Your task to perform on an android device: What is the news today? Image 0: 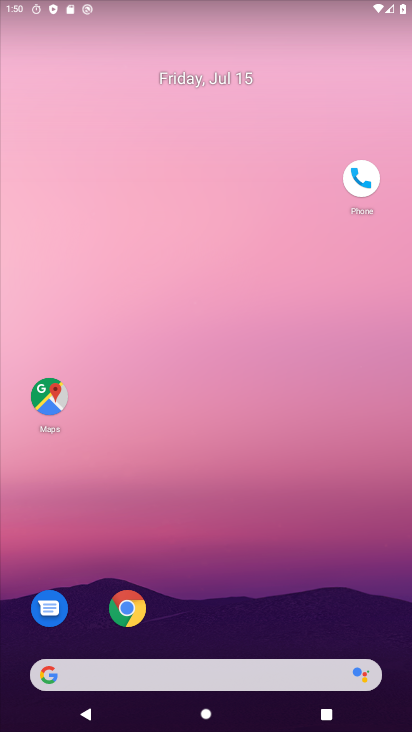
Step 0: drag from (227, 628) to (249, 117)
Your task to perform on an android device: What is the news today? Image 1: 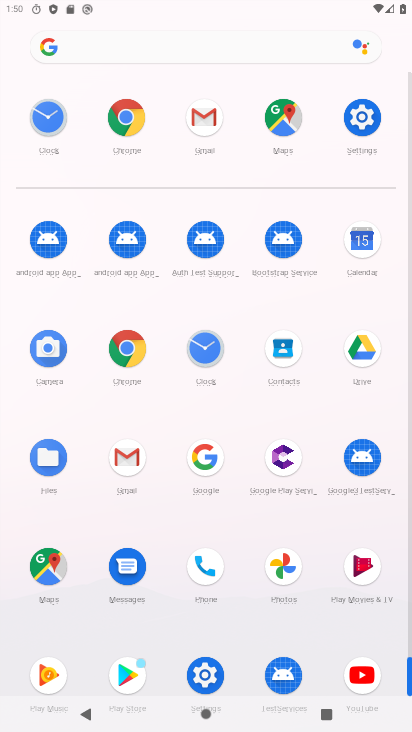
Step 1: click (358, 116)
Your task to perform on an android device: What is the news today? Image 2: 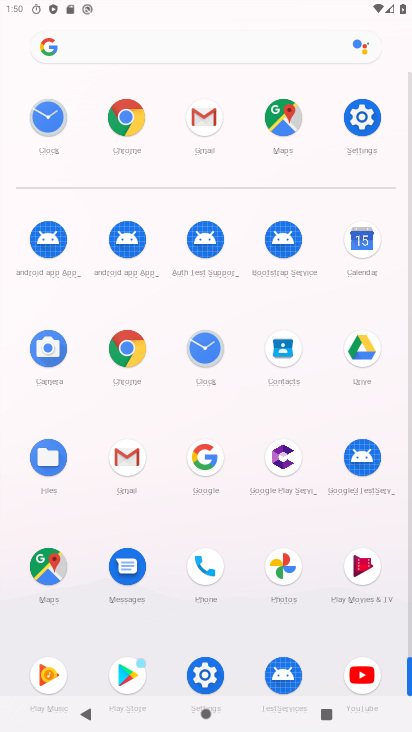
Step 2: click (358, 118)
Your task to perform on an android device: What is the news today? Image 3: 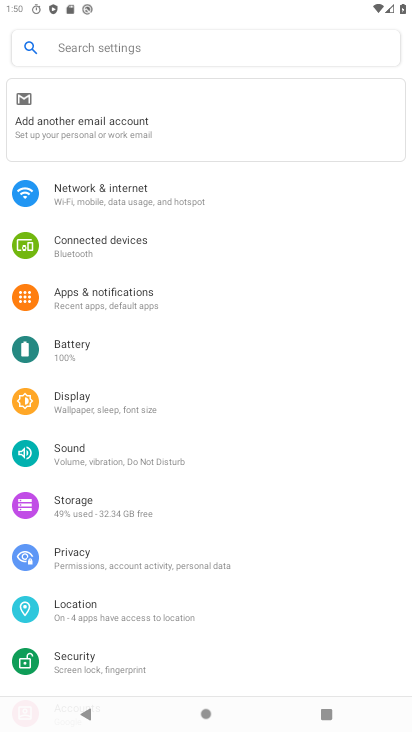
Step 3: press home button
Your task to perform on an android device: What is the news today? Image 4: 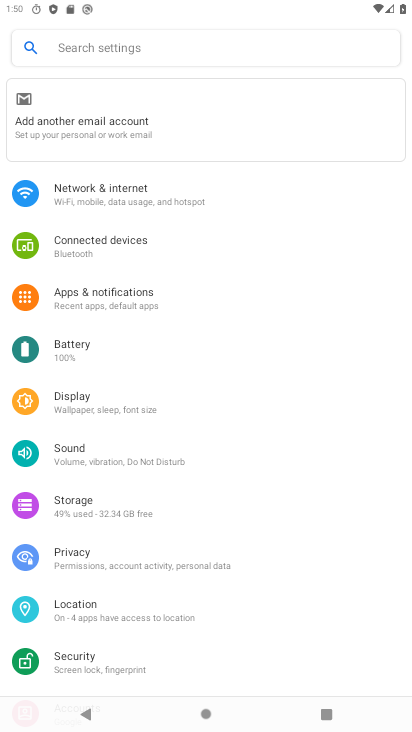
Step 4: press home button
Your task to perform on an android device: What is the news today? Image 5: 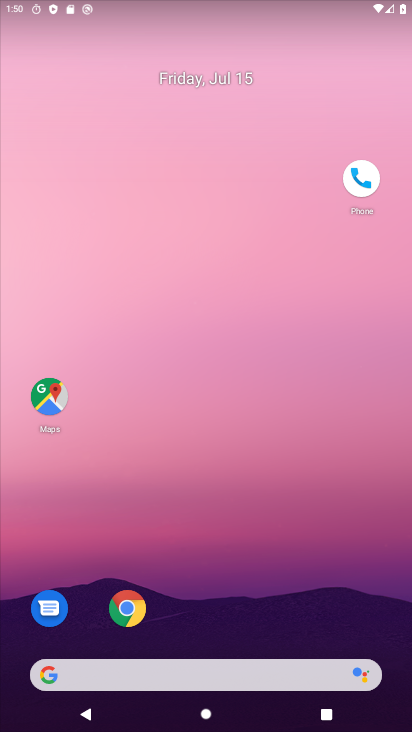
Step 5: drag from (250, 654) to (247, 17)
Your task to perform on an android device: What is the news today? Image 6: 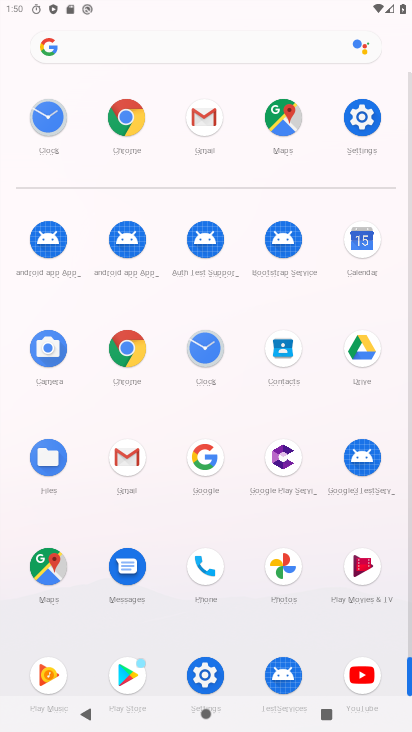
Step 6: click (113, 53)
Your task to perform on an android device: What is the news today? Image 7: 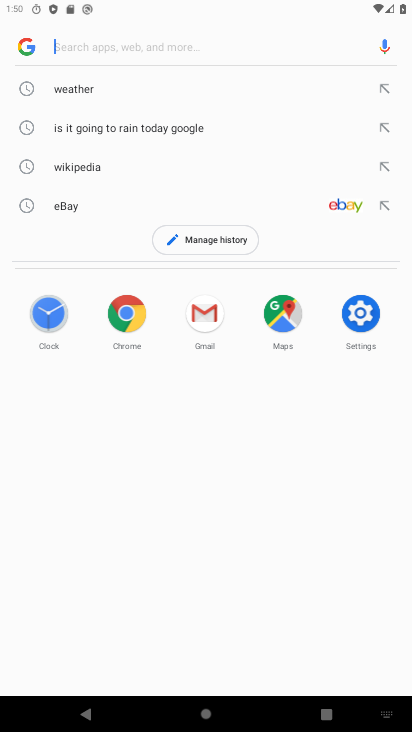
Step 7: type "news today"
Your task to perform on an android device: What is the news today? Image 8: 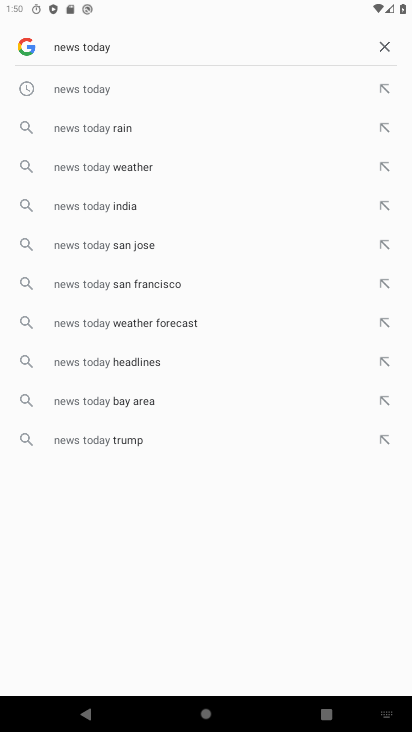
Step 8: click (144, 85)
Your task to perform on an android device: What is the news today? Image 9: 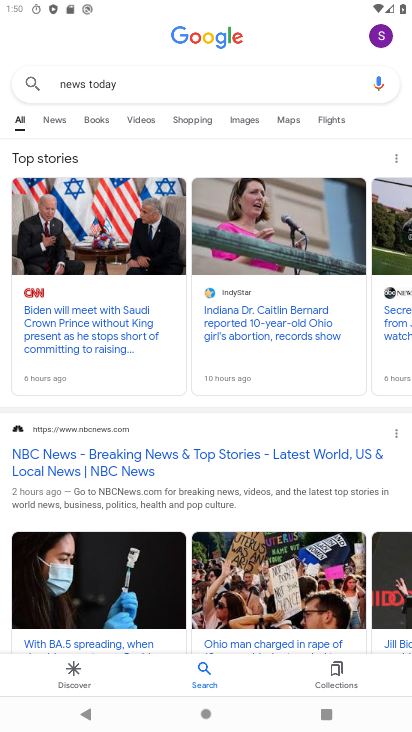
Step 9: task complete